Your task to perform on an android device: Open Google Chrome Image 0: 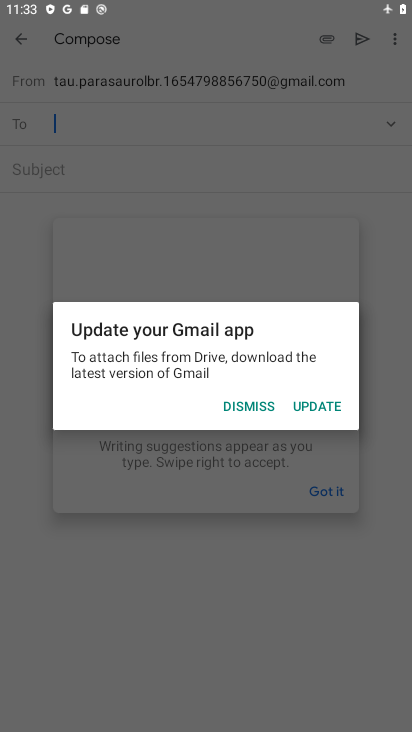
Step 0: press home button
Your task to perform on an android device: Open Google Chrome Image 1: 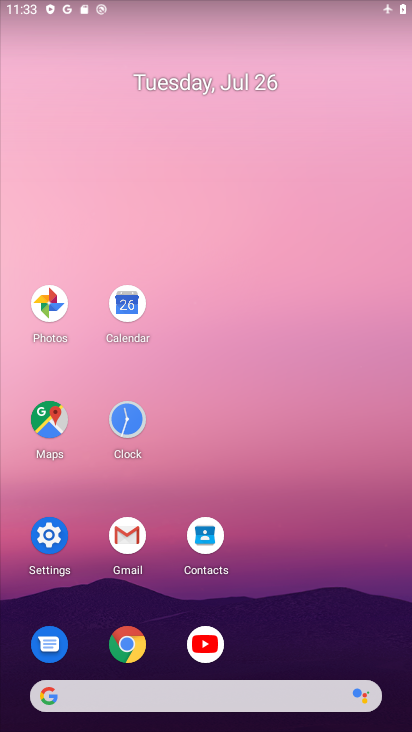
Step 1: click (127, 647)
Your task to perform on an android device: Open Google Chrome Image 2: 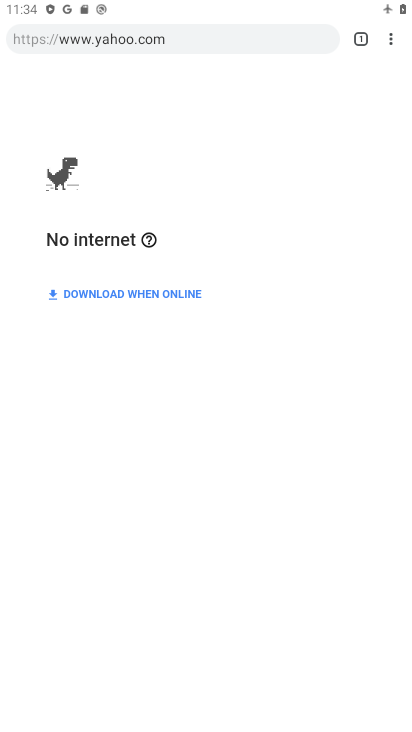
Step 2: task complete